Your task to perform on an android device: turn on data saver in the chrome app Image 0: 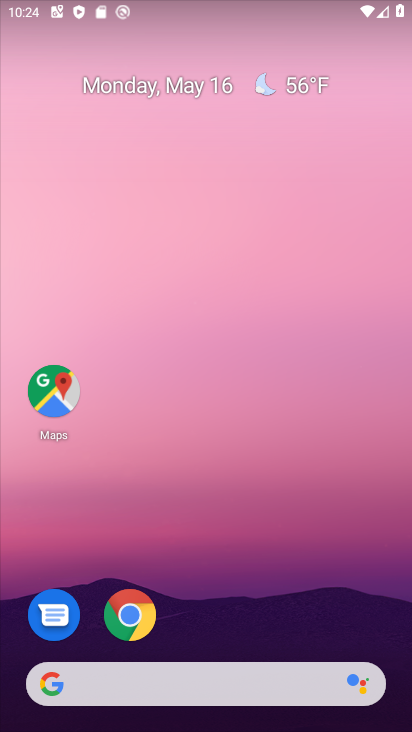
Step 0: drag from (285, 724) to (278, 214)
Your task to perform on an android device: turn on data saver in the chrome app Image 1: 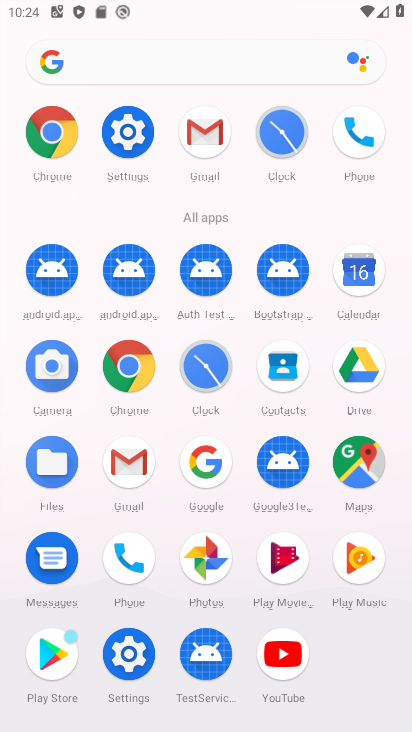
Step 1: click (131, 384)
Your task to perform on an android device: turn on data saver in the chrome app Image 2: 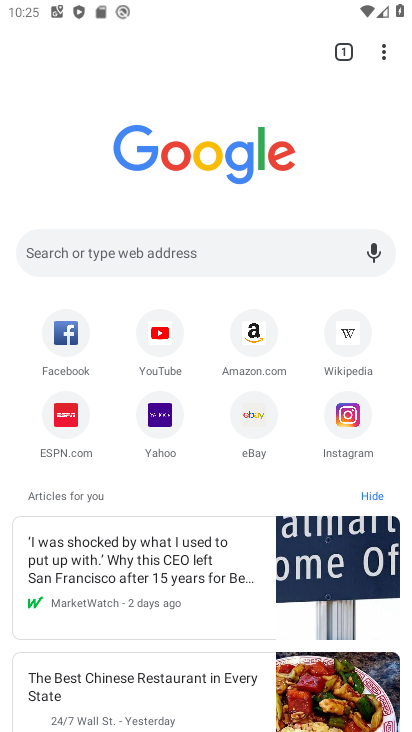
Step 2: click (379, 73)
Your task to perform on an android device: turn on data saver in the chrome app Image 3: 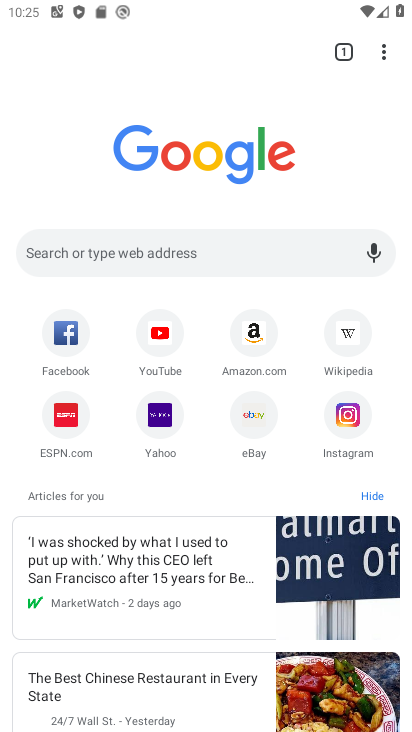
Step 3: click (378, 64)
Your task to perform on an android device: turn on data saver in the chrome app Image 4: 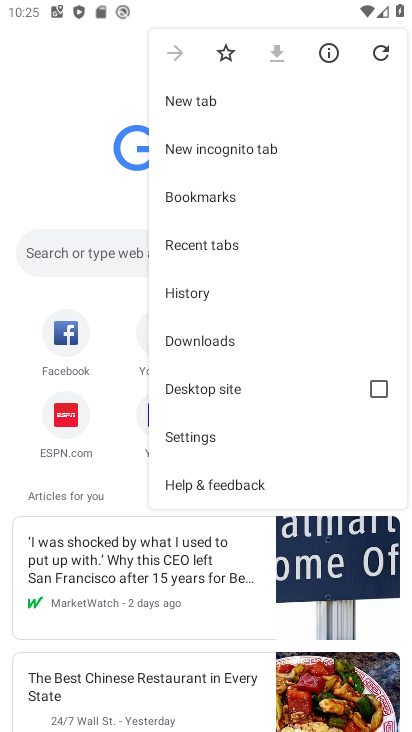
Step 4: click (202, 439)
Your task to perform on an android device: turn on data saver in the chrome app Image 5: 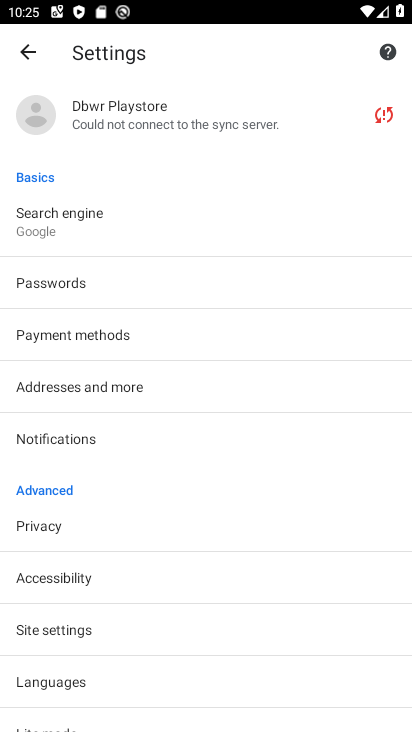
Step 5: drag from (83, 665) to (119, 514)
Your task to perform on an android device: turn on data saver in the chrome app Image 6: 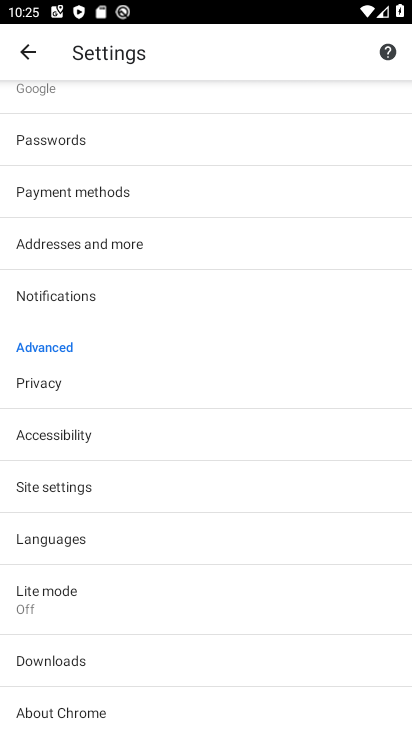
Step 6: click (50, 607)
Your task to perform on an android device: turn on data saver in the chrome app Image 7: 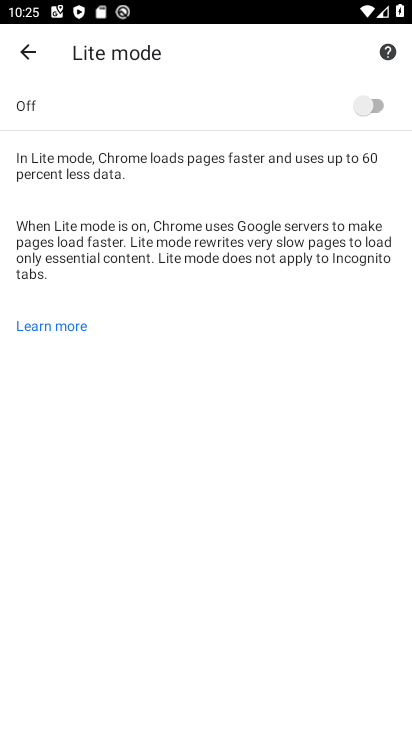
Step 7: click (380, 101)
Your task to perform on an android device: turn on data saver in the chrome app Image 8: 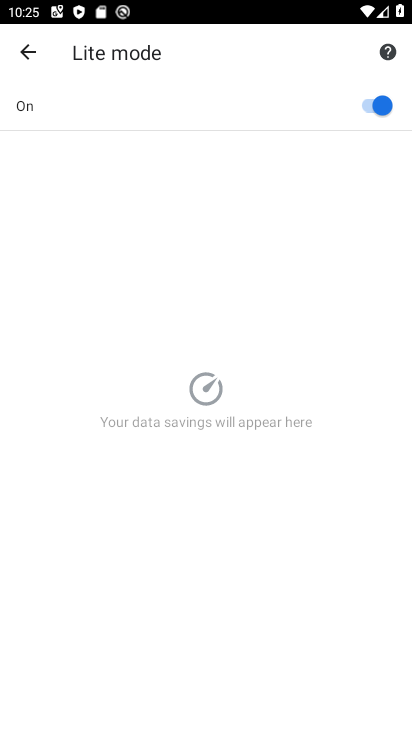
Step 8: task complete